Your task to perform on an android device: search for starred emails in the gmail app Image 0: 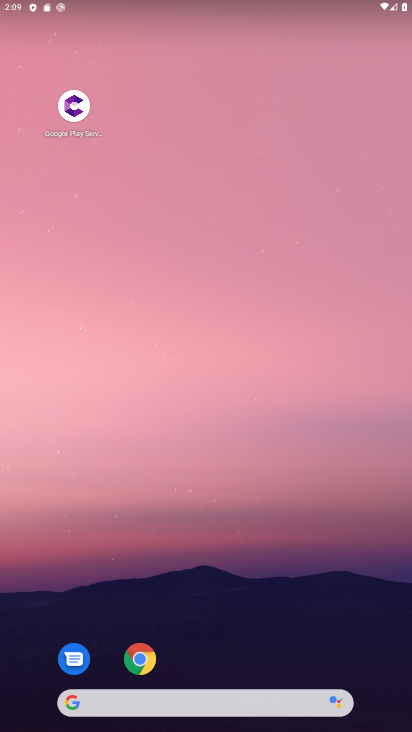
Step 0: drag from (321, 635) to (321, 87)
Your task to perform on an android device: search for starred emails in the gmail app Image 1: 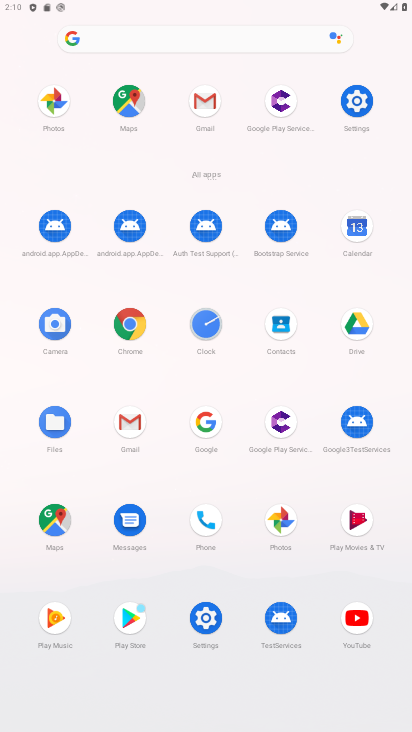
Step 1: click (208, 107)
Your task to perform on an android device: search for starred emails in the gmail app Image 2: 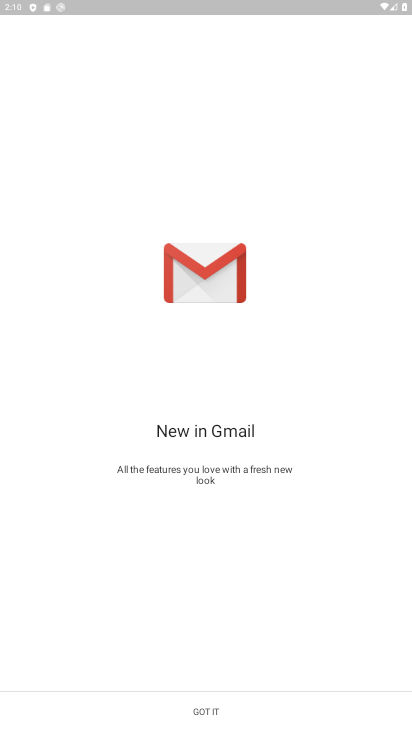
Step 2: click (234, 631)
Your task to perform on an android device: search for starred emails in the gmail app Image 3: 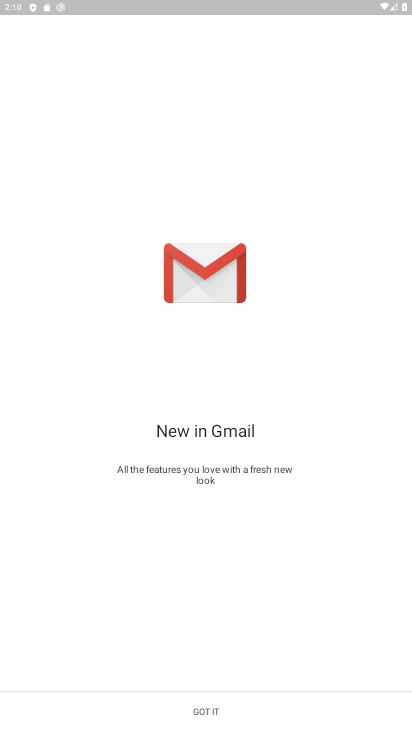
Step 3: click (233, 708)
Your task to perform on an android device: search for starred emails in the gmail app Image 4: 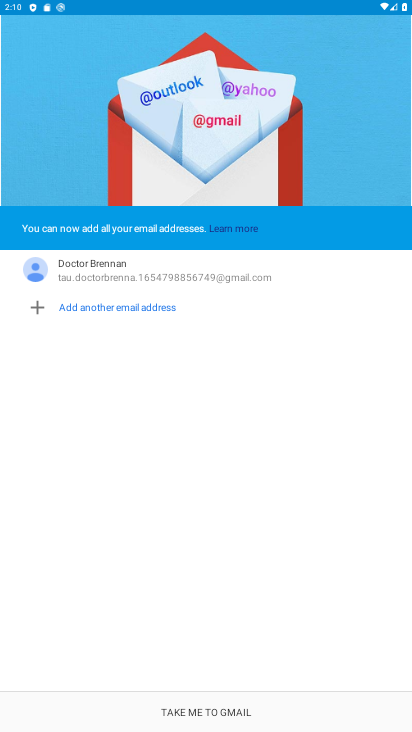
Step 4: click (161, 712)
Your task to perform on an android device: search for starred emails in the gmail app Image 5: 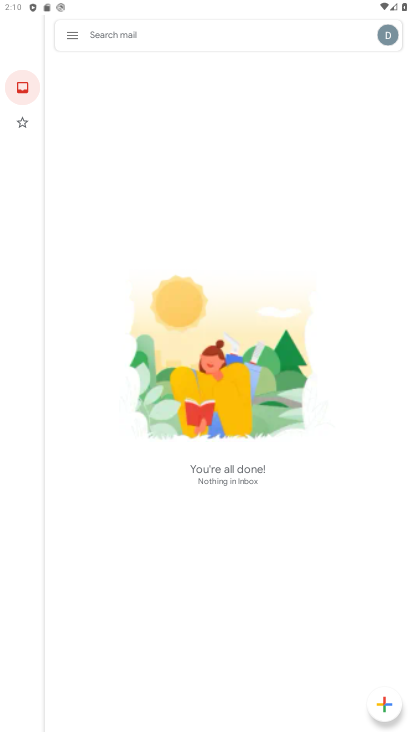
Step 5: click (65, 31)
Your task to perform on an android device: search for starred emails in the gmail app Image 6: 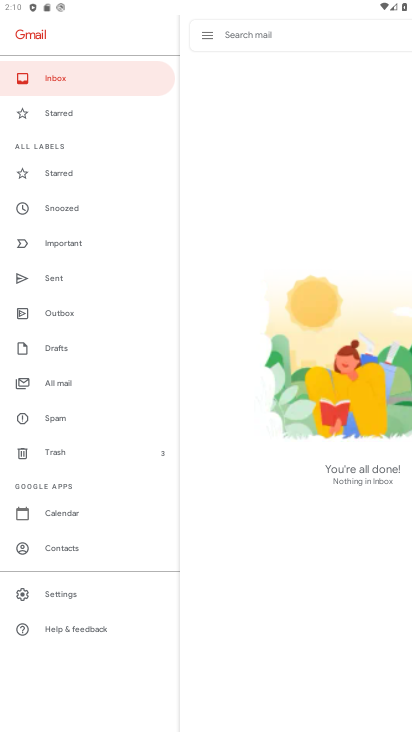
Step 6: click (60, 165)
Your task to perform on an android device: search for starred emails in the gmail app Image 7: 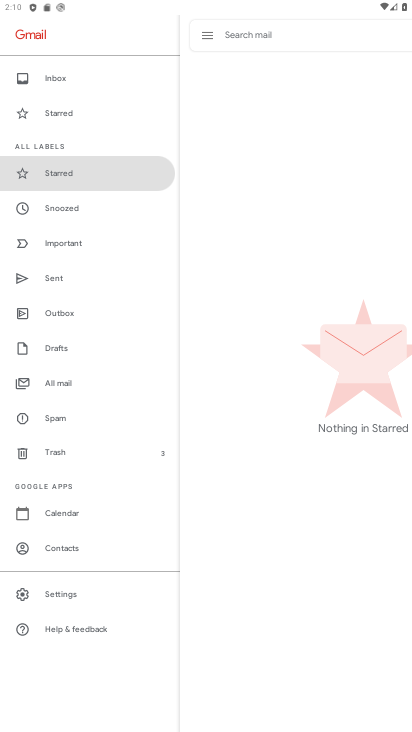
Step 7: task complete